Your task to perform on an android device: Open calendar and show me the third week of next month Image 0: 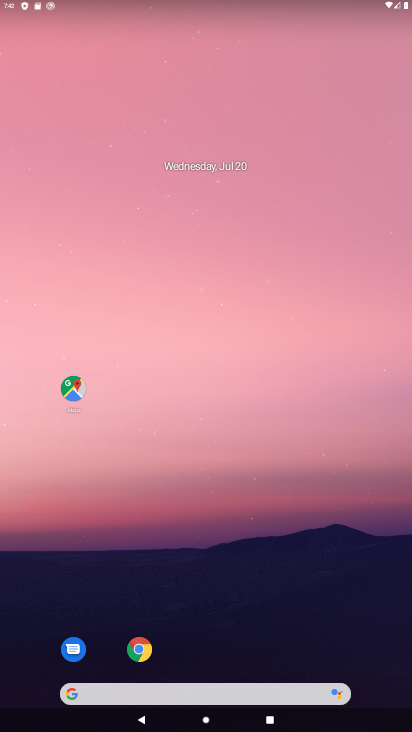
Step 0: drag from (223, 638) to (231, 182)
Your task to perform on an android device: Open calendar and show me the third week of next month Image 1: 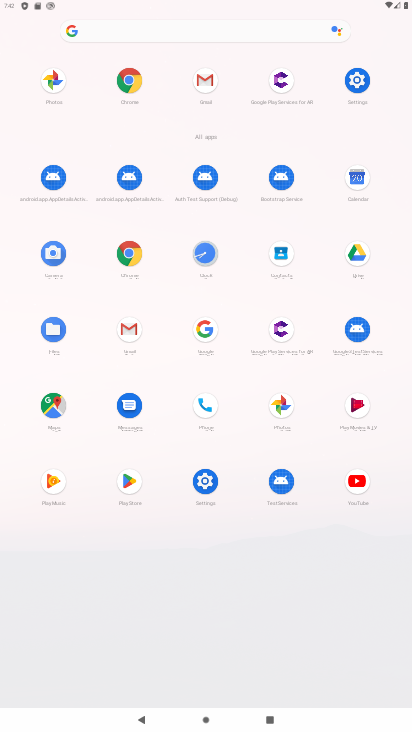
Step 1: click (295, 263)
Your task to perform on an android device: Open calendar and show me the third week of next month Image 2: 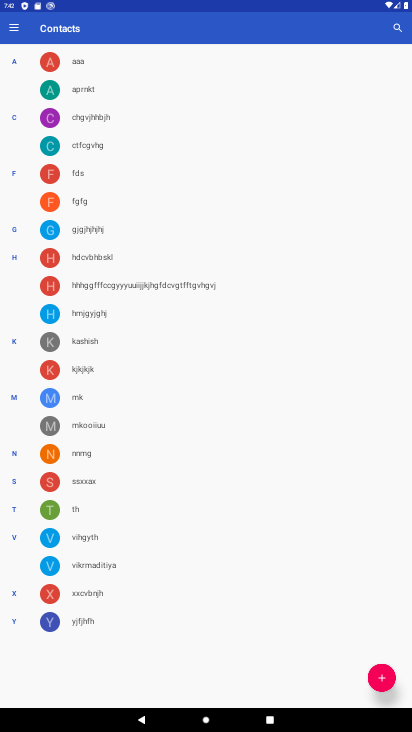
Step 2: press back button
Your task to perform on an android device: Open calendar and show me the third week of next month Image 3: 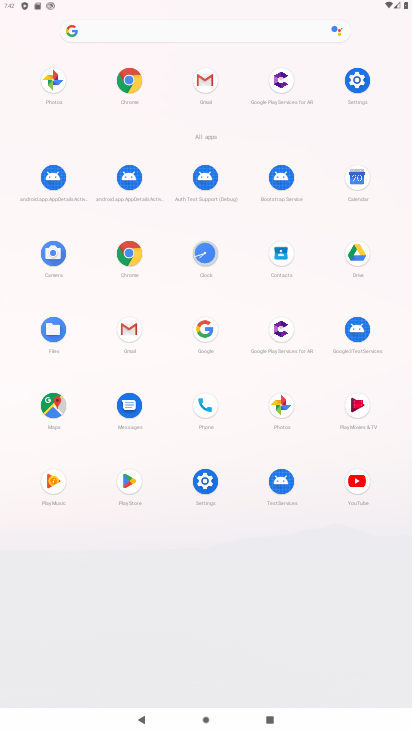
Step 3: click (369, 188)
Your task to perform on an android device: Open calendar and show me the third week of next month Image 4: 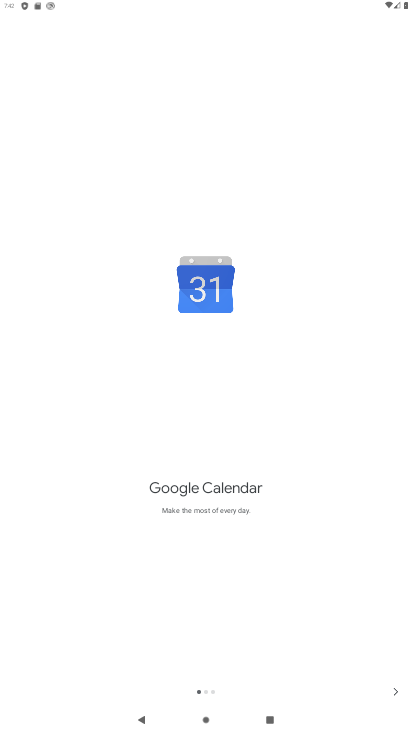
Step 4: click (386, 691)
Your task to perform on an android device: Open calendar and show me the third week of next month Image 5: 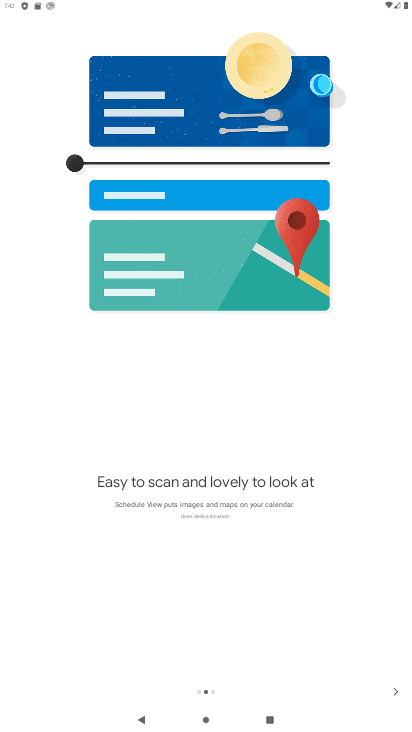
Step 5: click (386, 691)
Your task to perform on an android device: Open calendar and show me the third week of next month Image 6: 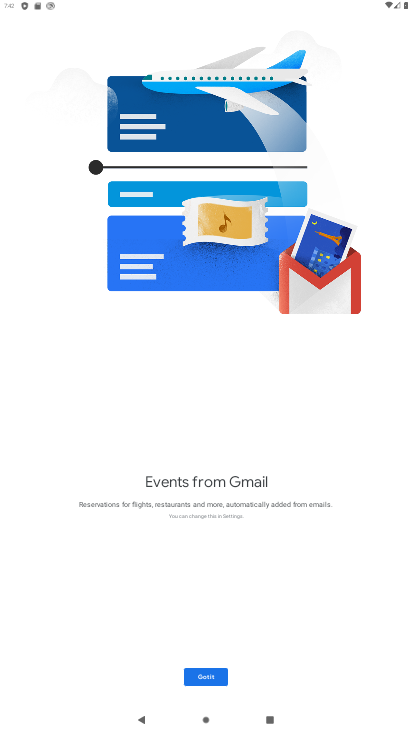
Step 6: click (199, 671)
Your task to perform on an android device: Open calendar and show me the third week of next month Image 7: 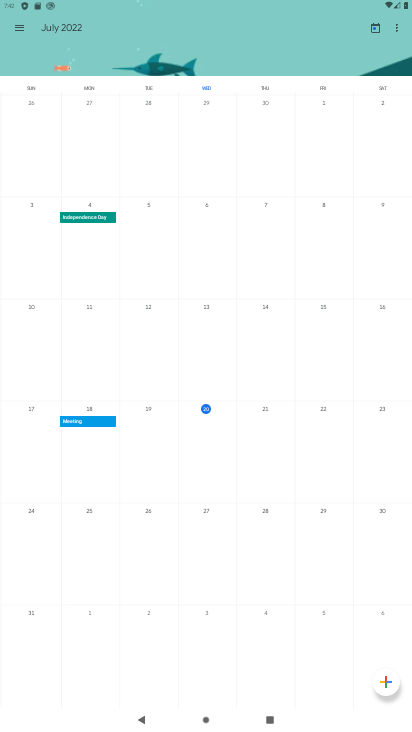
Step 7: task complete